Your task to perform on an android device: turn pop-ups on in chrome Image 0: 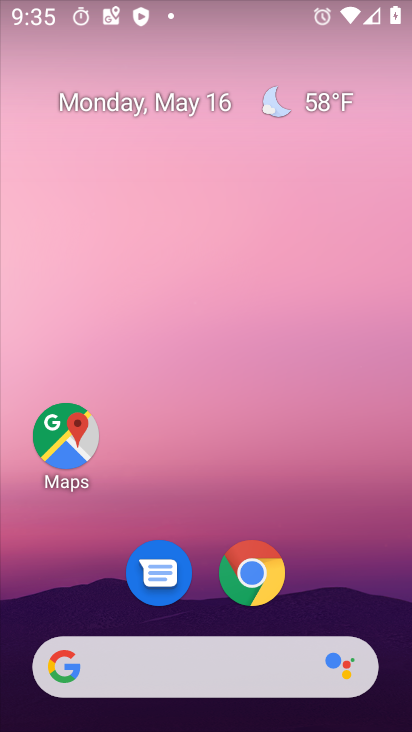
Step 0: drag from (321, 655) to (192, 213)
Your task to perform on an android device: turn pop-ups on in chrome Image 1: 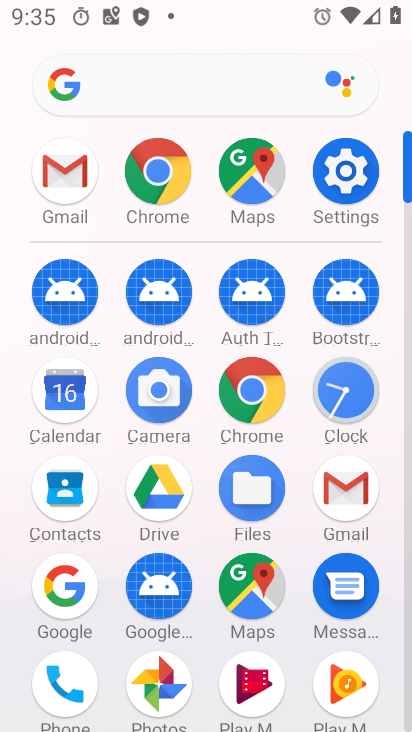
Step 1: click (145, 151)
Your task to perform on an android device: turn pop-ups on in chrome Image 2: 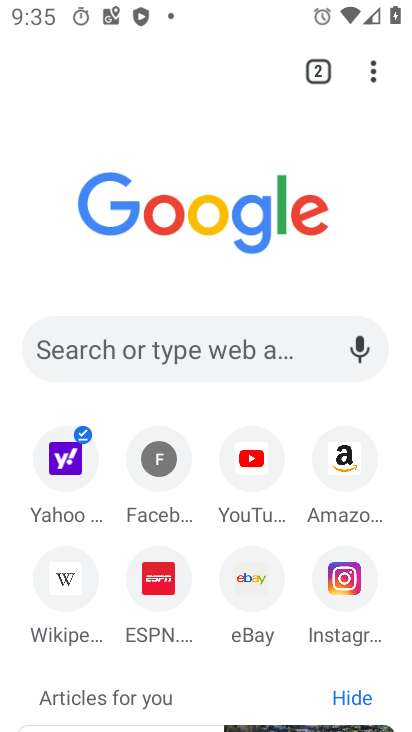
Step 2: drag from (375, 64) to (117, 612)
Your task to perform on an android device: turn pop-ups on in chrome Image 3: 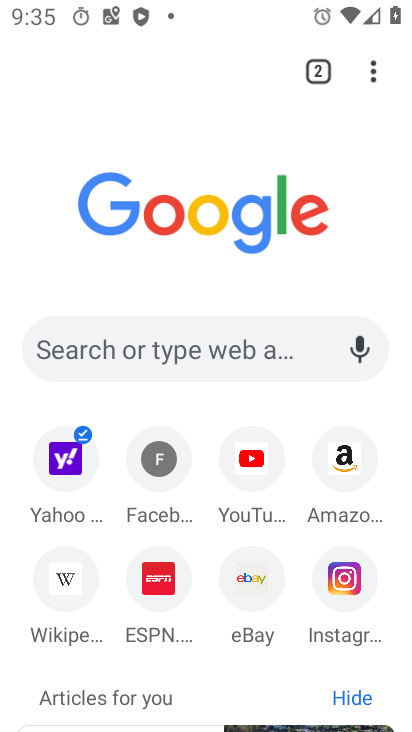
Step 3: click (117, 614)
Your task to perform on an android device: turn pop-ups on in chrome Image 4: 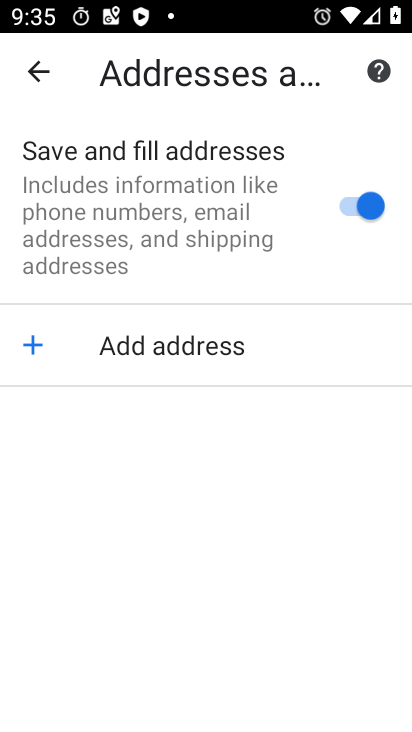
Step 4: click (31, 67)
Your task to perform on an android device: turn pop-ups on in chrome Image 5: 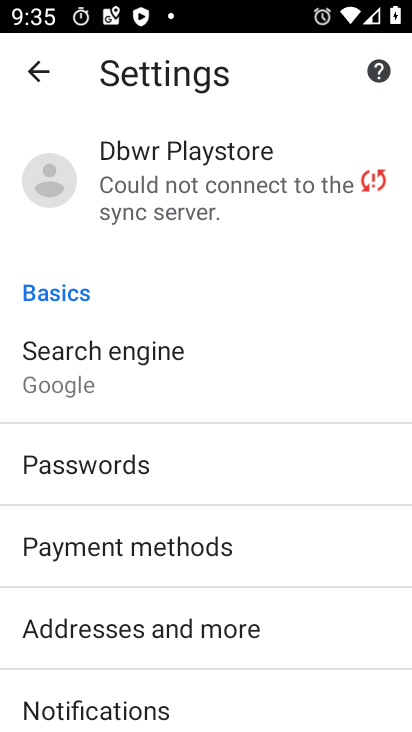
Step 5: drag from (299, 545) to (250, 320)
Your task to perform on an android device: turn pop-ups on in chrome Image 6: 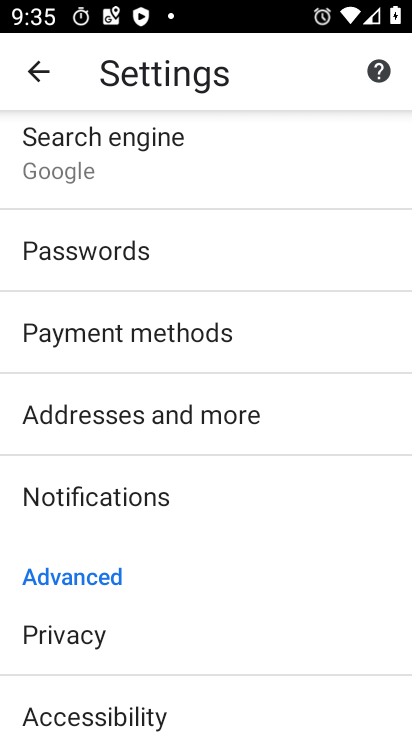
Step 6: drag from (178, 646) to (64, 234)
Your task to perform on an android device: turn pop-ups on in chrome Image 7: 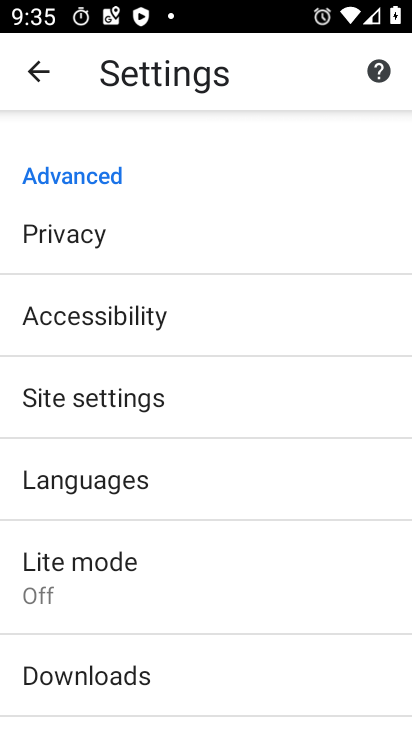
Step 7: click (88, 402)
Your task to perform on an android device: turn pop-ups on in chrome Image 8: 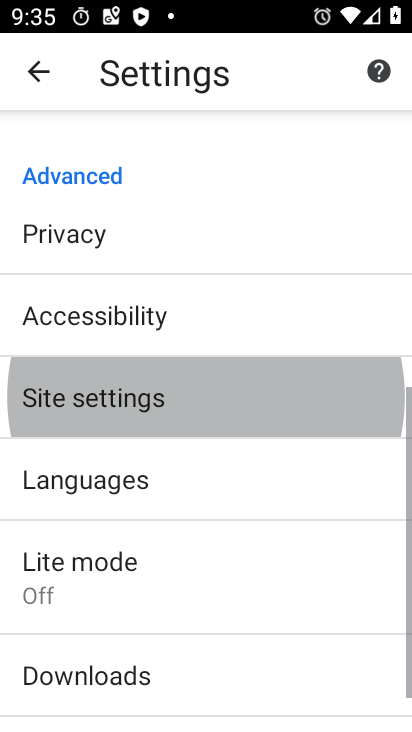
Step 8: click (88, 402)
Your task to perform on an android device: turn pop-ups on in chrome Image 9: 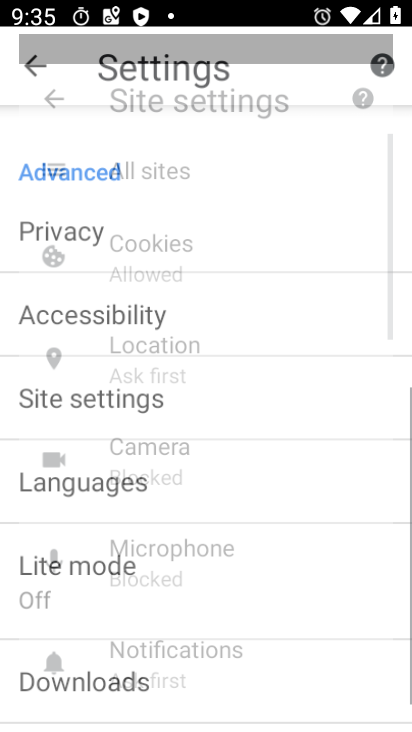
Step 9: click (88, 401)
Your task to perform on an android device: turn pop-ups on in chrome Image 10: 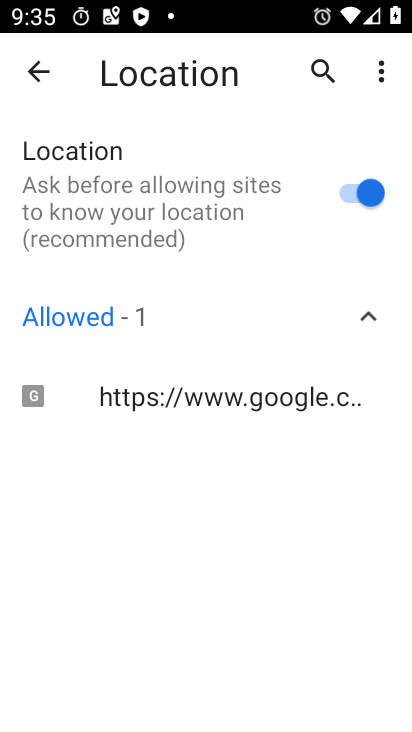
Step 10: click (42, 63)
Your task to perform on an android device: turn pop-ups on in chrome Image 11: 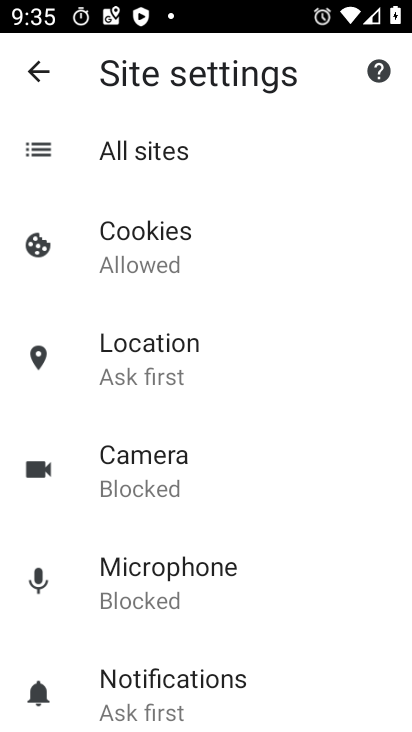
Step 11: drag from (158, 612) to (103, 217)
Your task to perform on an android device: turn pop-ups on in chrome Image 12: 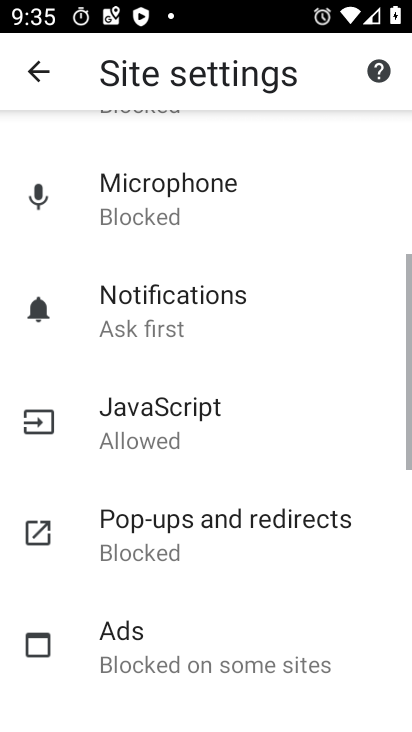
Step 12: click (158, 520)
Your task to perform on an android device: turn pop-ups on in chrome Image 13: 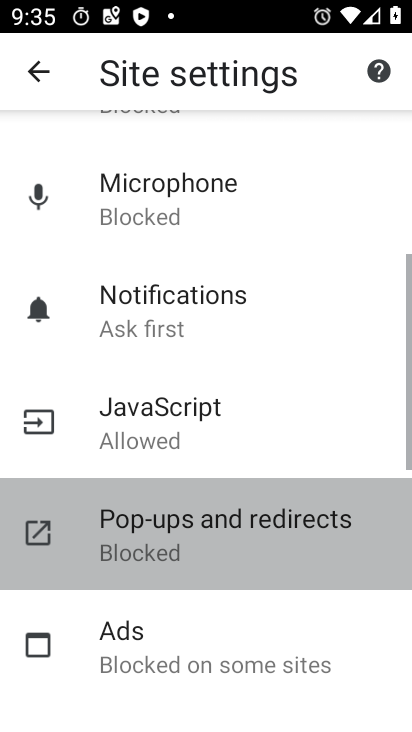
Step 13: click (158, 520)
Your task to perform on an android device: turn pop-ups on in chrome Image 14: 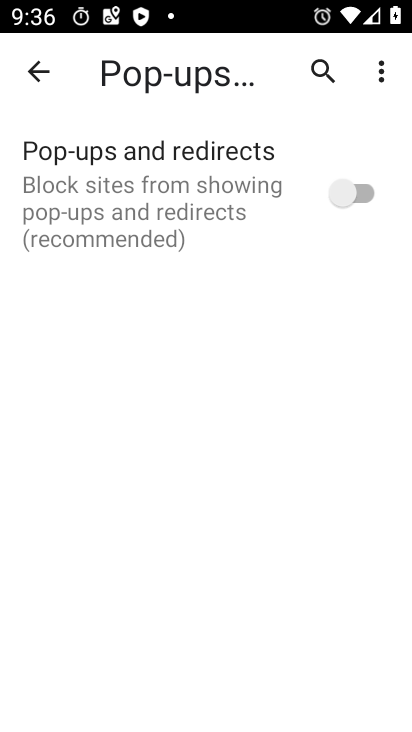
Step 14: click (347, 190)
Your task to perform on an android device: turn pop-ups on in chrome Image 15: 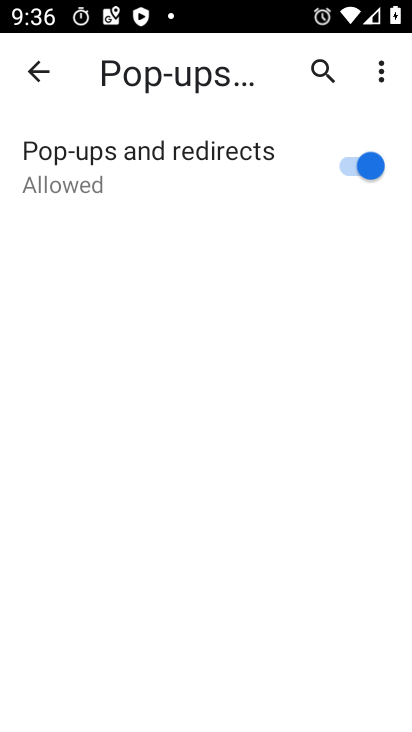
Step 15: task complete